Your task to perform on an android device: Search for Italian restaurants on Maps Image 0: 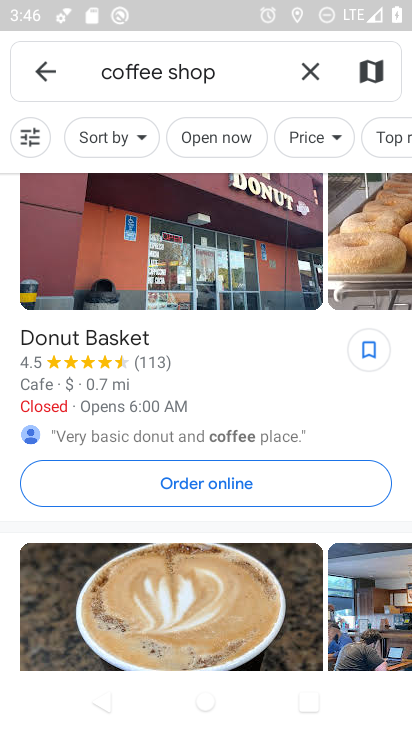
Step 0: press home button
Your task to perform on an android device: Search for Italian restaurants on Maps Image 1: 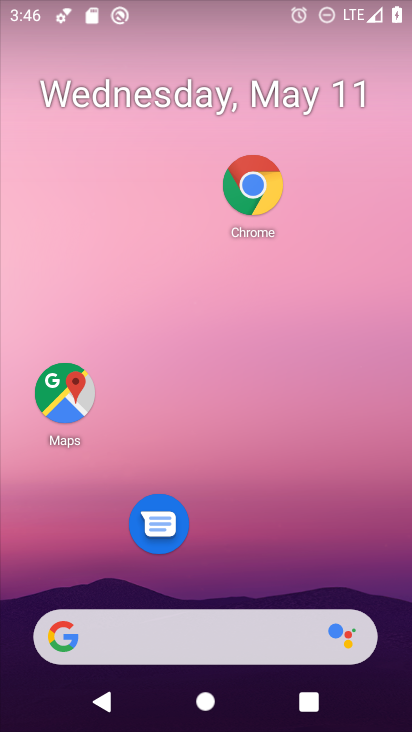
Step 1: click (61, 401)
Your task to perform on an android device: Search for Italian restaurants on Maps Image 2: 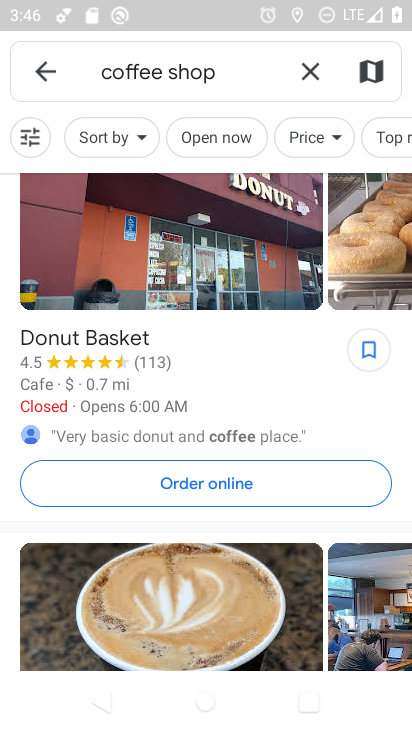
Step 2: click (308, 67)
Your task to perform on an android device: Search for Italian restaurants on Maps Image 3: 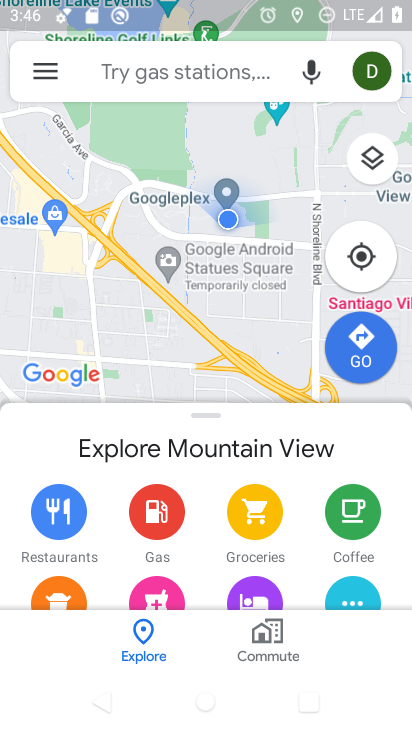
Step 3: click (187, 65)
Your task to perform on an android device: Search for Italian restaurants on Maps Image 4: 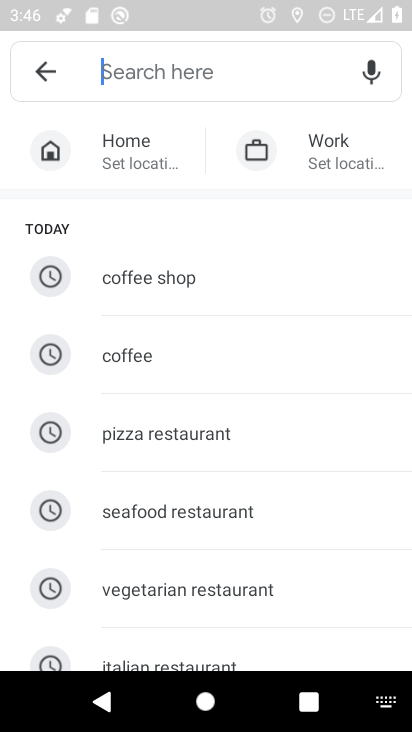
Step 4: drag from (299, 580) to (338, 379)
Your task to perform on an android device: Search for Italian restaurants on Maps Image 5: 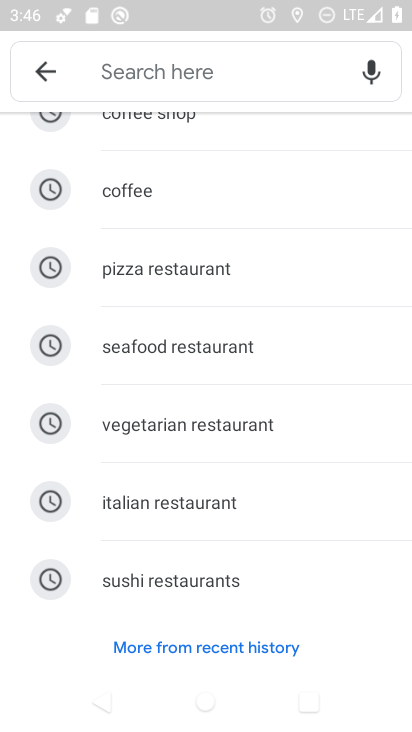
Step 5: click (229, 495)
Your task to perform on an android device: Search for Italian restaurants on Maps Image 6: 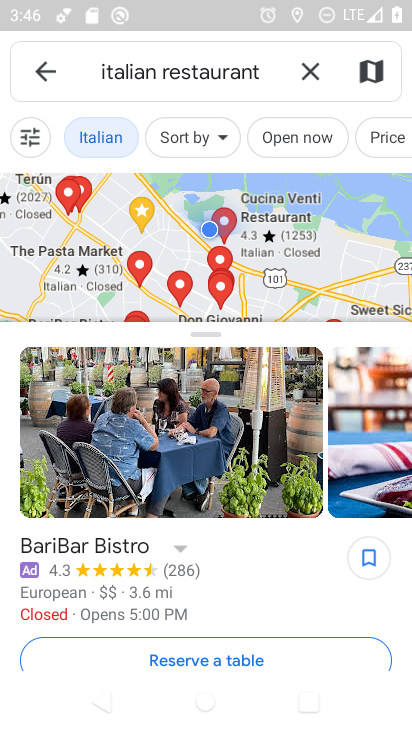
Step 6: task complete